Your task to perform on an android device: all mails in gmail Image 0: 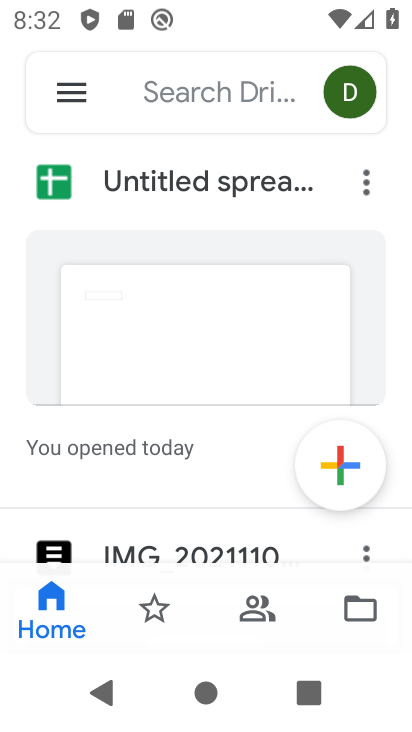
Step 0: press home button
Your task to perform on an android device: all mails in gmail Image 1: 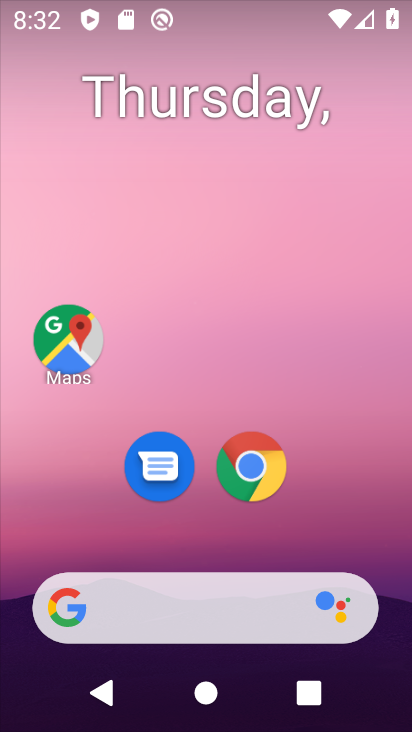
Step 1: drag from (129, 625) to (337, 105)
Your task to perform on an android device: all mails in gmail Image 2: 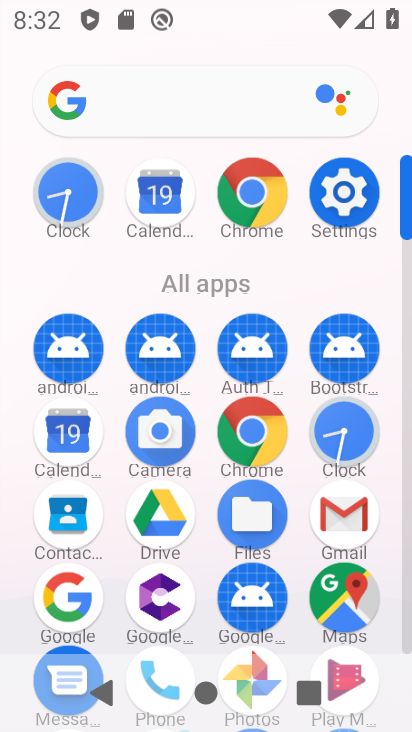
Step 2: click (349, 519)
Your task to perform on an android device: all mails in gmail Image 3: 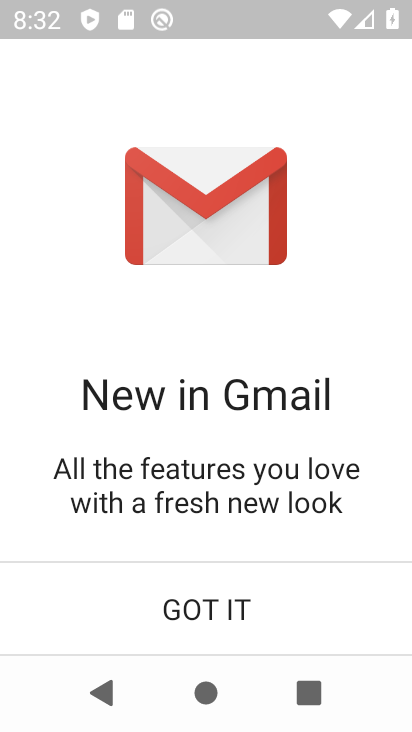
Step 3: click (220, 619)
Your task to perform on an android device: all mails in gmail Image 4: 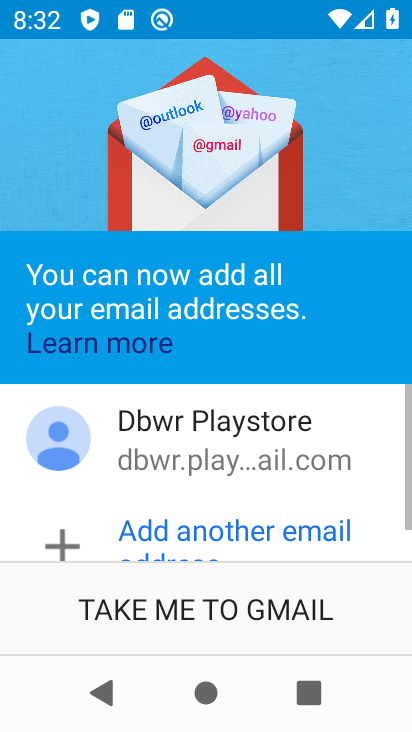
Step 4: click (220, 618)
Your task to perform on an android device: all mails in gmail Image 5: 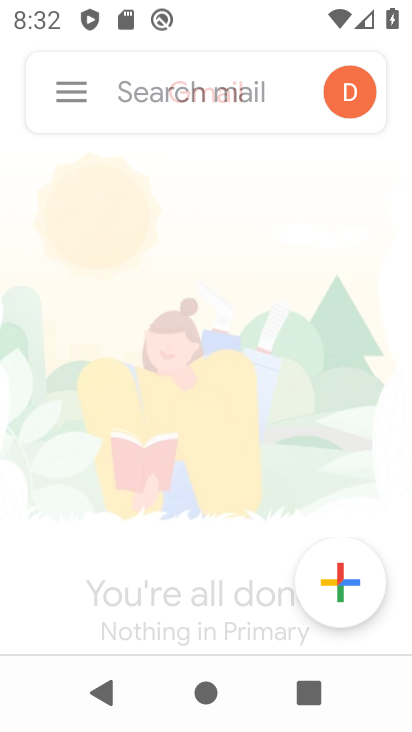
Step 5: click (67, 94)
Your task to perform on an android device: all mails in gmail Image 6: 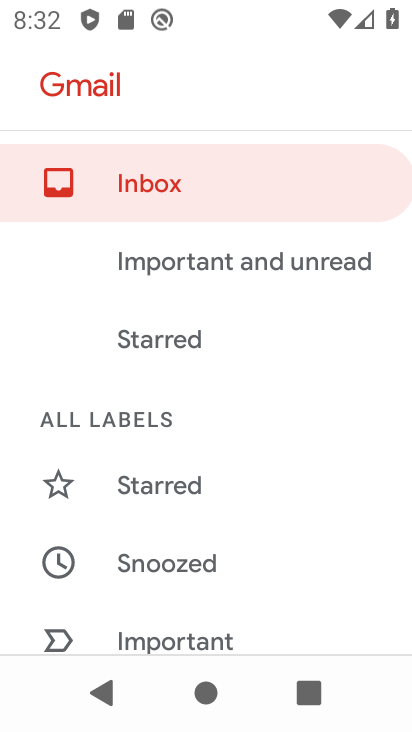
Step 6: drag from (273, 554) to (385, 57)
Your task to perform on an android device: all mails in gmail Image 7: 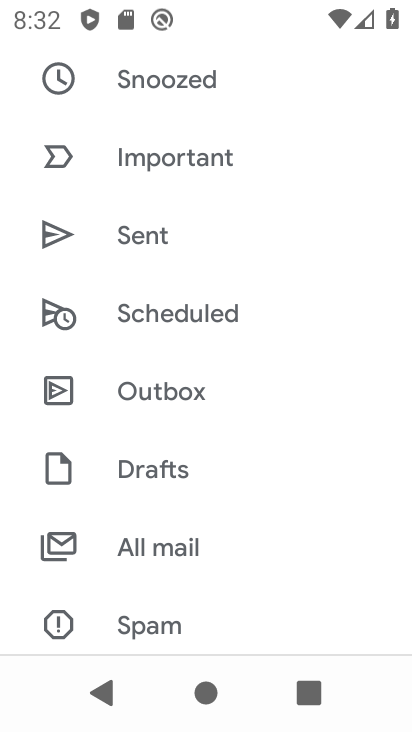
Step 7: click (195, 544)
Your task to perform on an android device: all mails in gmail Image 8: 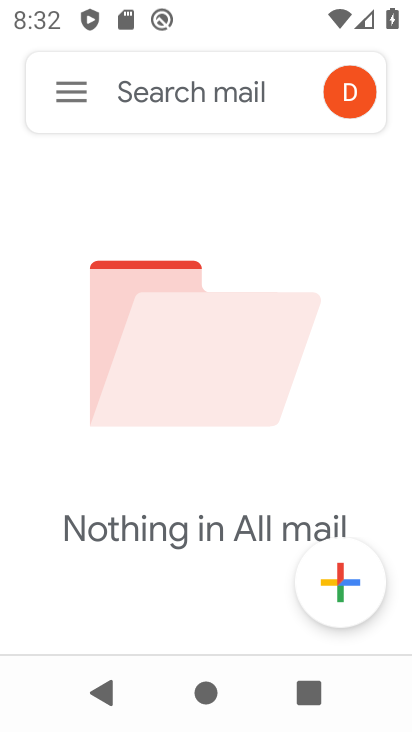
Step 8: task complete